Your task to perform on an android device: visit the assistant section in the google photos Image 0: 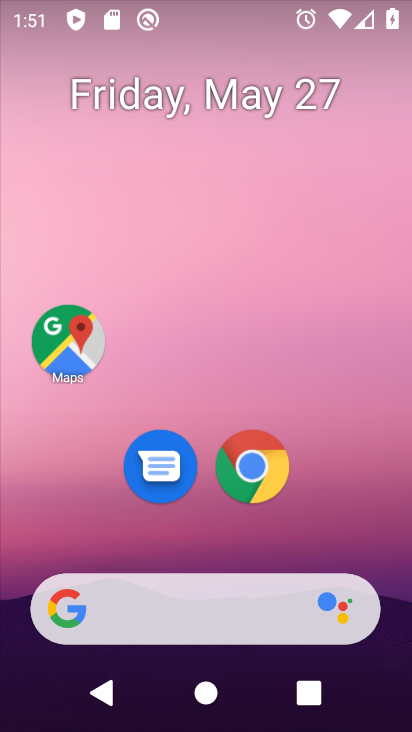
Step 0: drag from (303, 531) to (284, 100)
Your task to perform on an android device: visit the assistant section in the google photos Image 1: 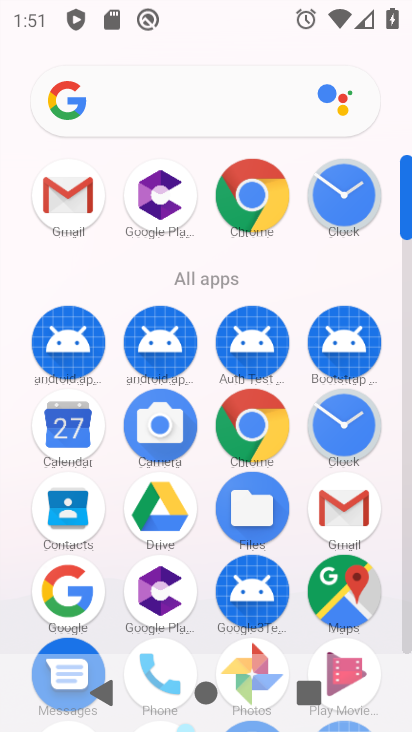
Step 1: click (338, 580)
Your task to perform on an android device: visit the assistant section in the google photos Image 2: 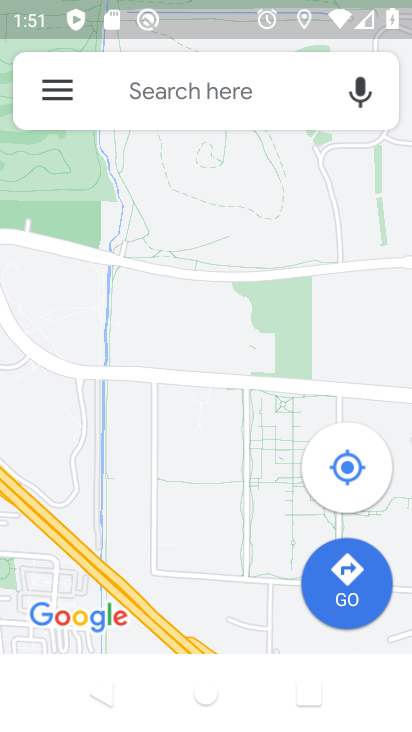
Step 2: press home button
Your task to perform on an android device: visit the assistant section in the google photos Image 3: 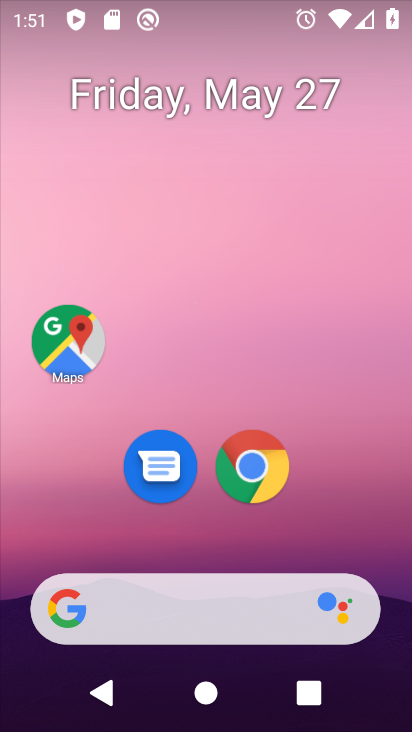
Step 3: drag from (324, 529) to (323, 6)
Your task to perform on an android device: visit the assistant section in the google photos Image 4: 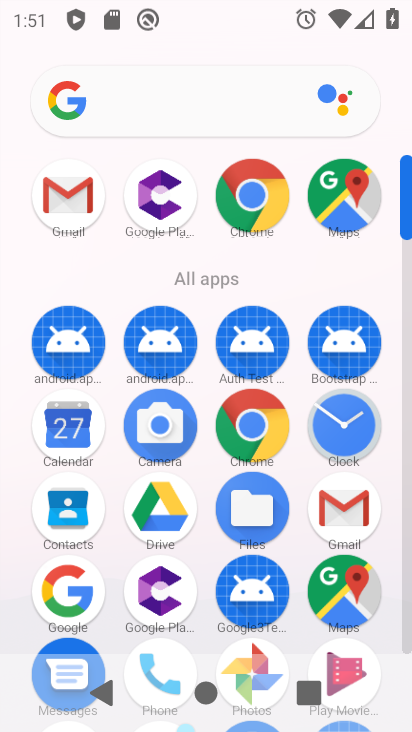
Step 4: drag from (288, 294) to (297, 94)
Your task to perform on an android device: visit the assistant section in the google photos Image 5: 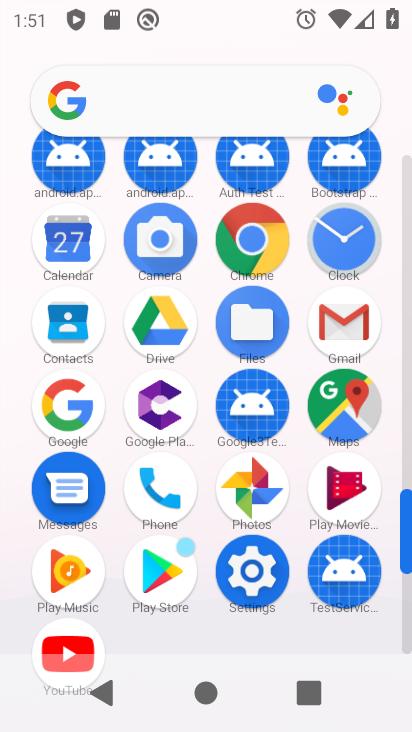
Step 5: click (261, 486)
Your task to perform on an android device: visit the assistant section in the google photos Image 6: 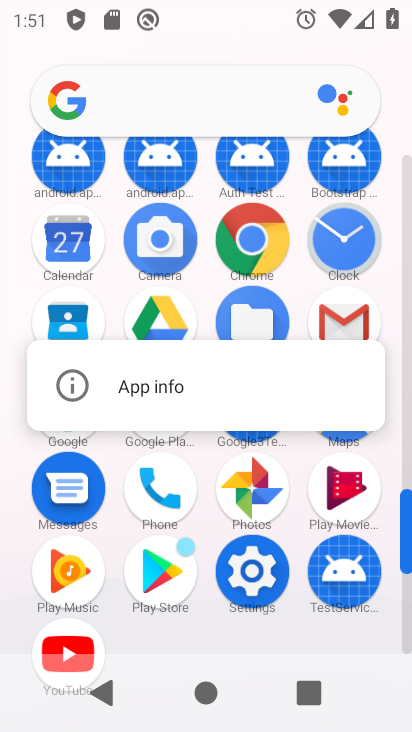
Step 6: click (249, 481)
Your task to perform on an android device: visit the assistant section in the google photos Image 7: 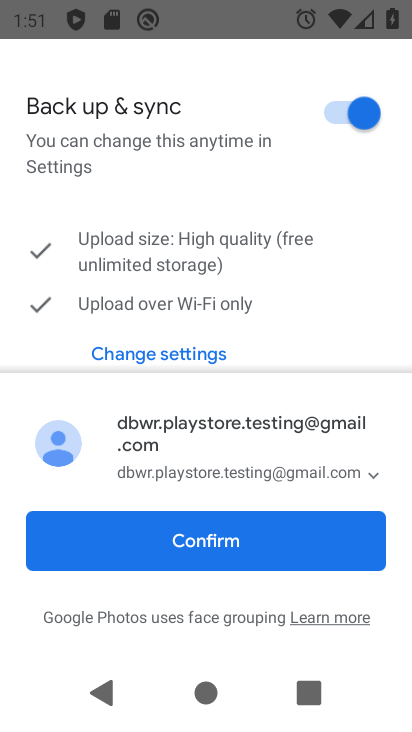
Step 7: click (301, 545)
Your task to perform on an android device: visit the assistant section in the google photos Image 8: 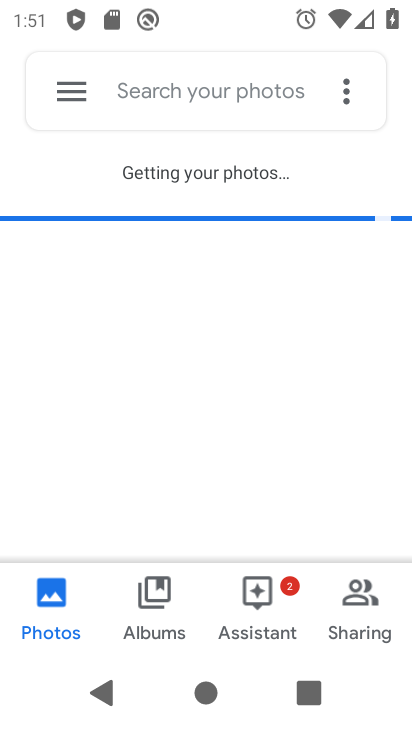
Step 8: click (255, 596)
Your task to perform on an android device: visit the assistant section in the google photos Image 9: 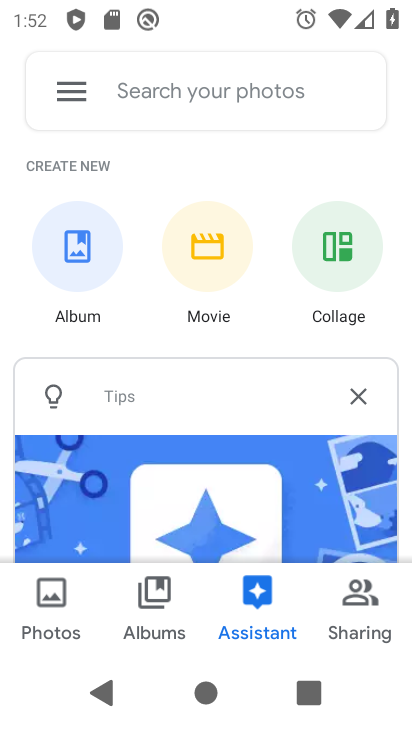
Step 9: task complete